Your task to perform on an android device: Open CNN.com Image 0: 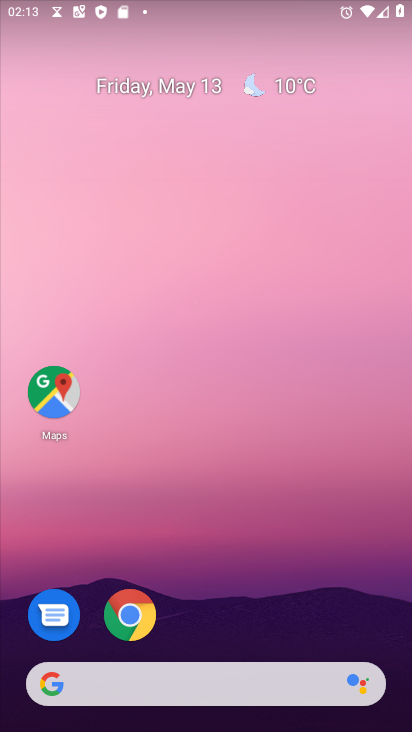
Step 0: click (132, 615)
Your task to perform on an android device: Open CNN.com Image 1: 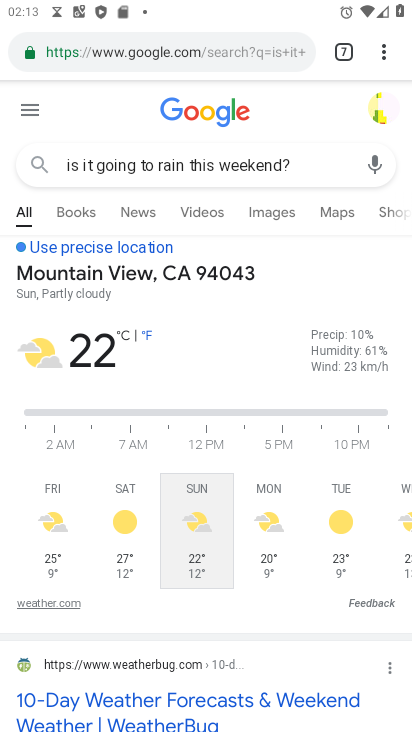
Step 1: click (346, 49)
Your task to perform on an android device: Open CNN.com Image 2: 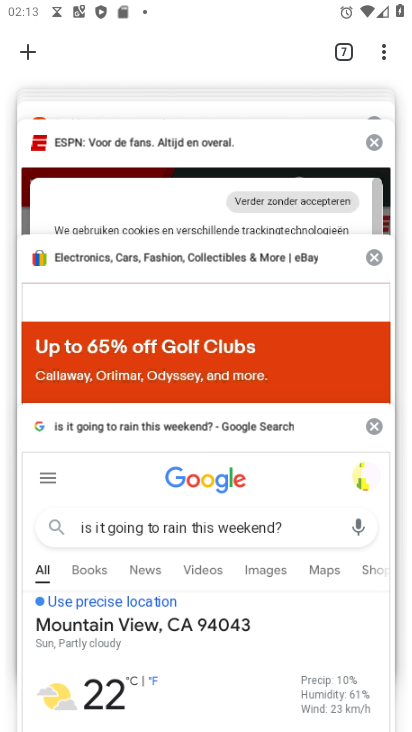
Step 2: drag from (103, 181) to (135, 524)
Your task to perform on an android device: Open CNN.com Image 3: 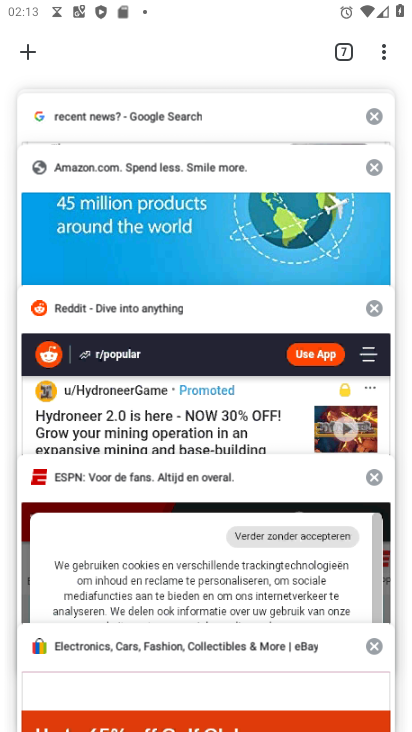
Step 3: click (26, 50)
Your task to perform on an android device: Open CNN.com Image 4: 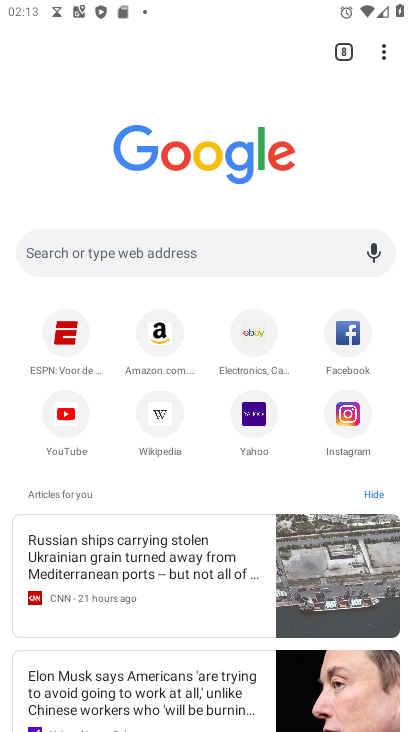
Step 4: click (145, 244)
Your task to perform on an android device: Open CNN.com Image 5: 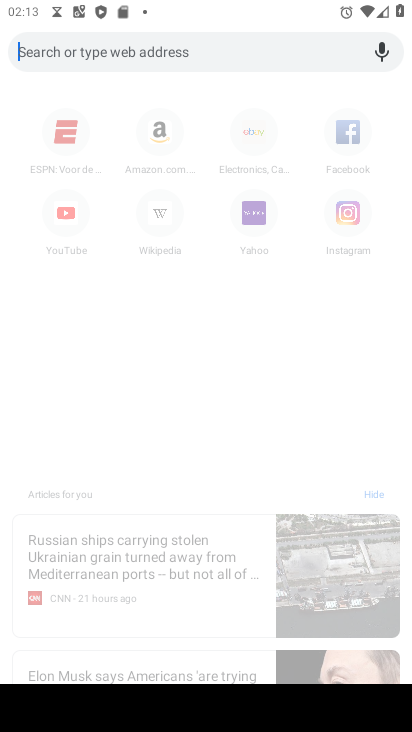
Step 5: type "cnn.com"
Your task to perform on an android device: Open CNN.com Image 6: 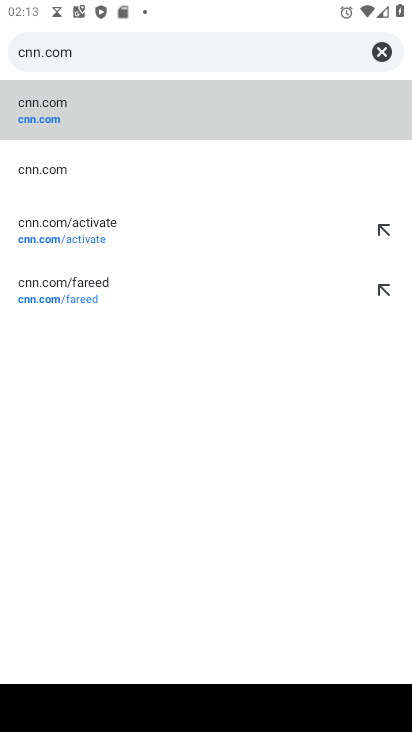
Step 6: click (47, 110)
Your task to perform on an android device: Open CNN.com Image 7: 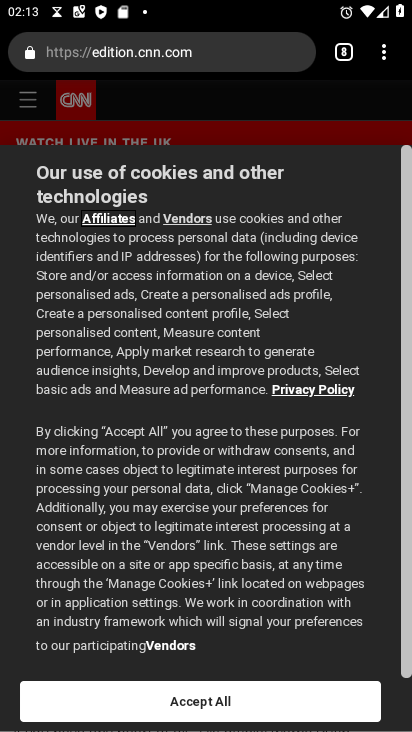
Step 7: click (207, 712)
Your task to perform on an android device: Open CNN.com Image 8: 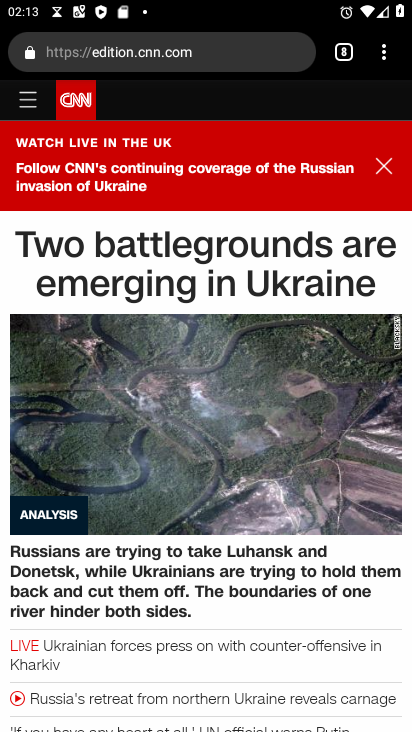
Step 8: task complete